Your task to perform on an android device: check android version Image 0: 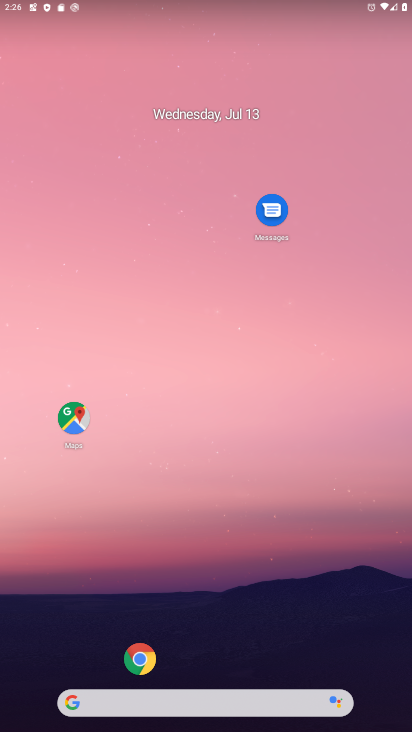
Step 0: drag from (38, 683) to (194, 51)
Your task to perform on an android device: check android version Image 1: 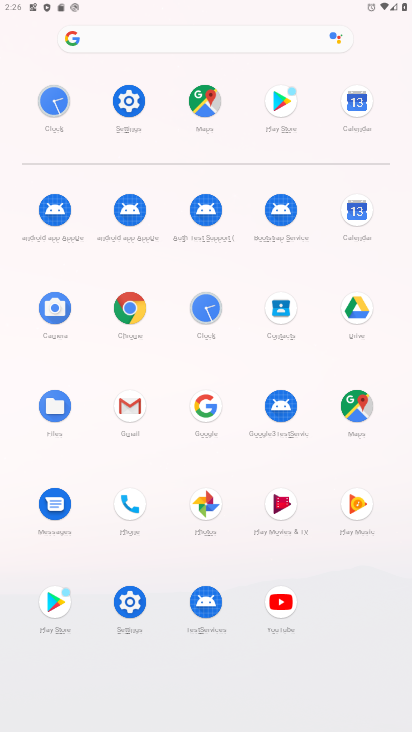
Step 1: click (128, 608)
Your task to perform on an android device: check android version Image 2: 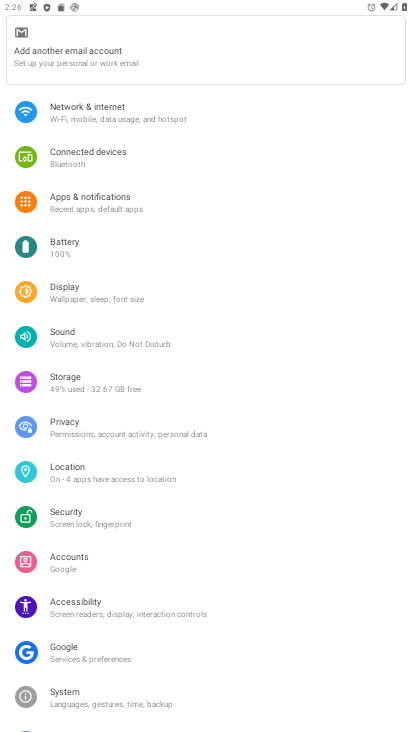
Step 2: drag from (202, 699) to (250, 375)
Your task to perform on an android device: check android version Image 3: 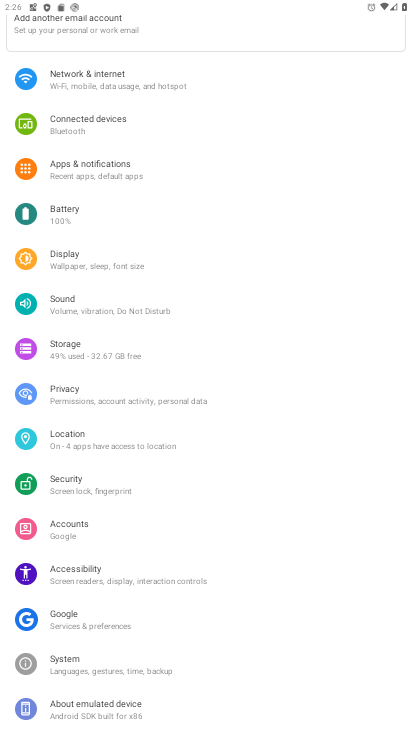
Step 3: click (55, 715)
Your task to perform on an android device: check android version Image 4: 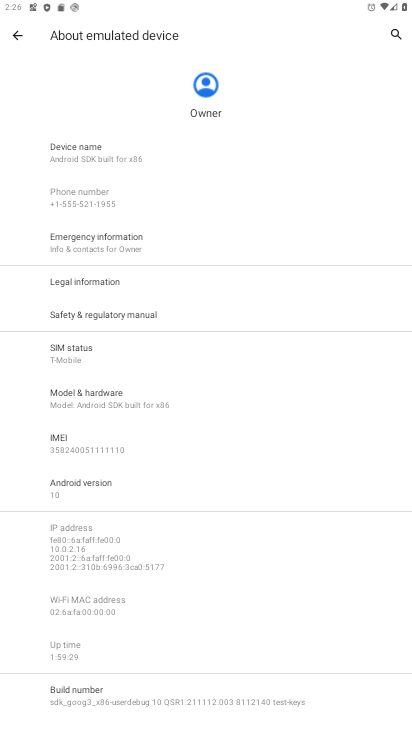
Step 4: click (81, 470)
Your task to perform on an android device: check android version Image 5: 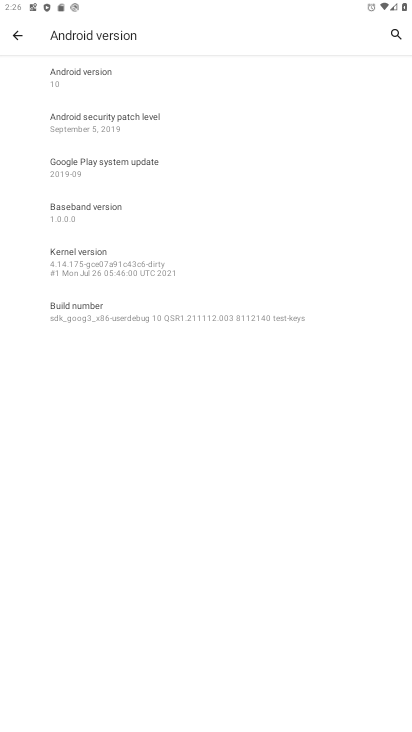
Step 5: task complete